Your task to perform on an android device: Open Chrome and go to settings Image 0: 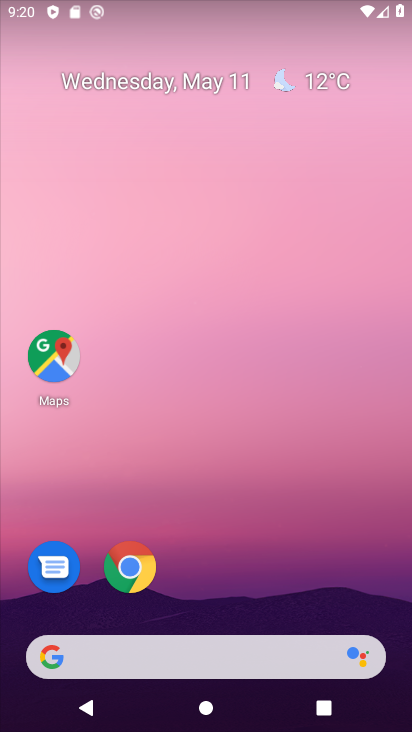
Step 0: click (121, 567)
Your task to perform on an android device: Open Chrome and go to settings Image 1: 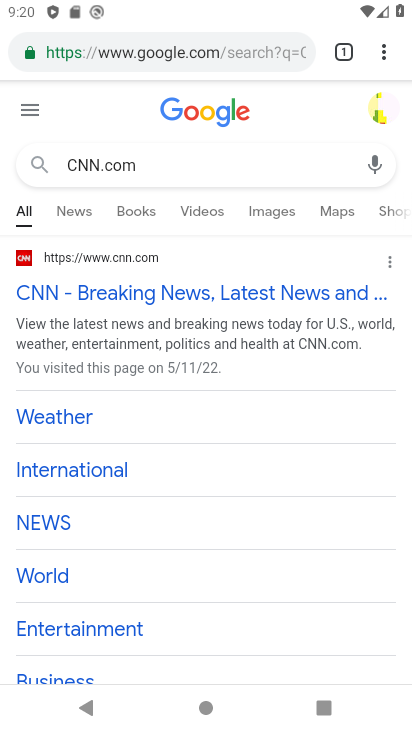
Step 1: click (383, 55)
Your task to perform on an android device: Open Chrome and go to settings Image 2: 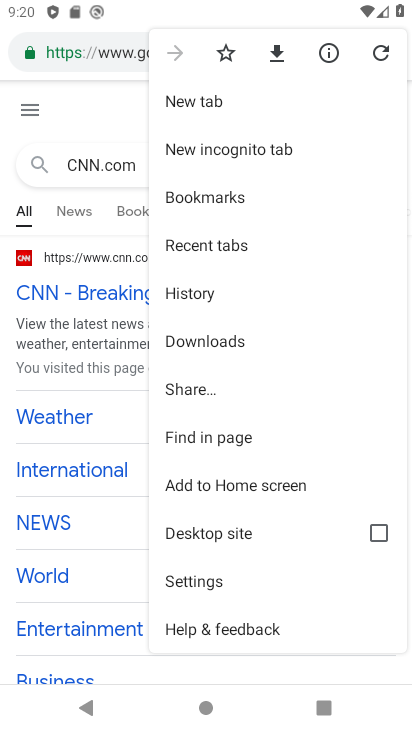
Step 2: click (229, 587)
Your task to perform on an android device: Open Chrome and go to settings Image 3: 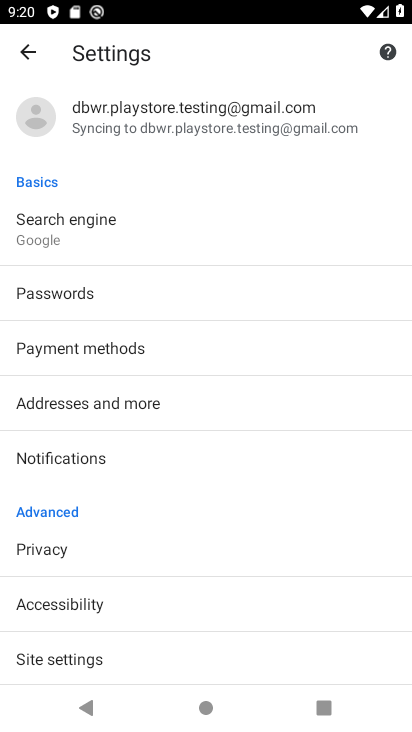
Step 3: task complete